Your task to perform on an android device: Clear the cart on amazon.com. Add razer naga to the cart on amazon.com Image 0: 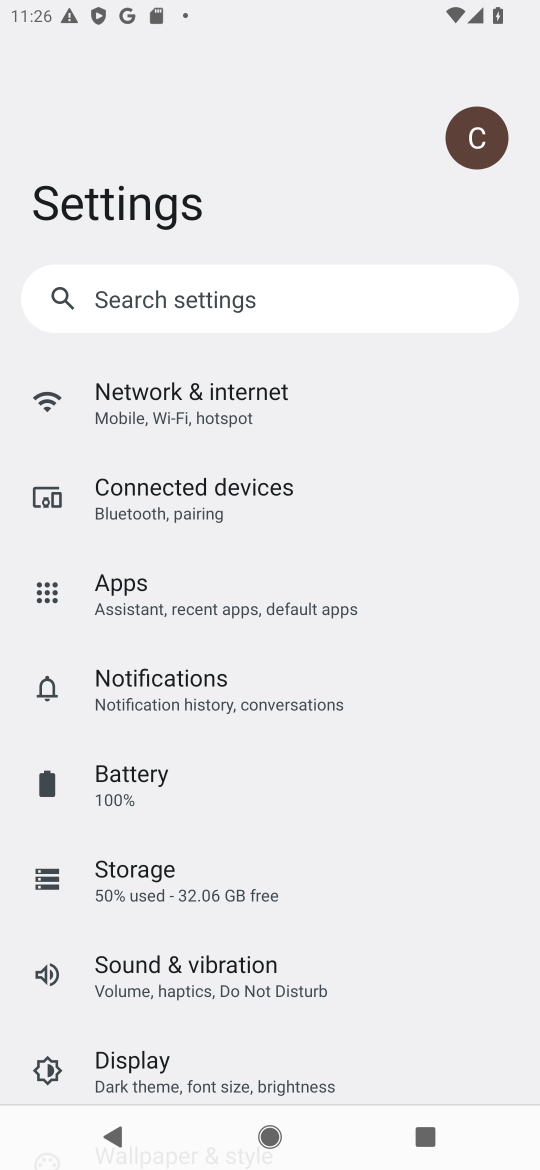
Step 0: press home button
Your task to perform on an android device: Clear the cart on amazon.com. Add razer naga to the cart on amazon.com Image 1: 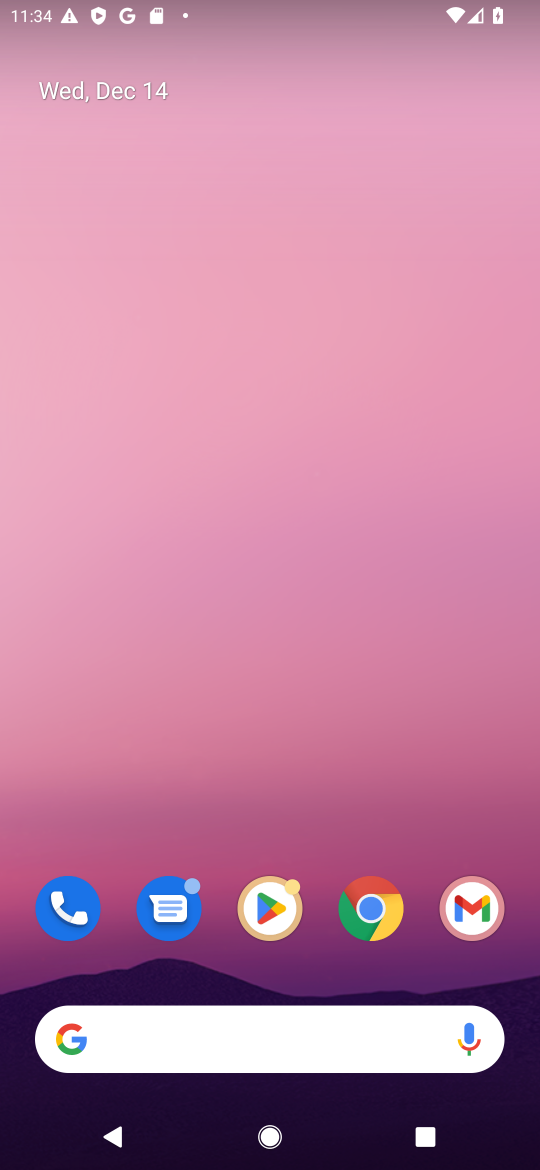
Step 1: click (366, 907)
Your task to perform on an android device: Clear the cart on amazon.com. Add razer naga to the cart on amazon.com Image 2: 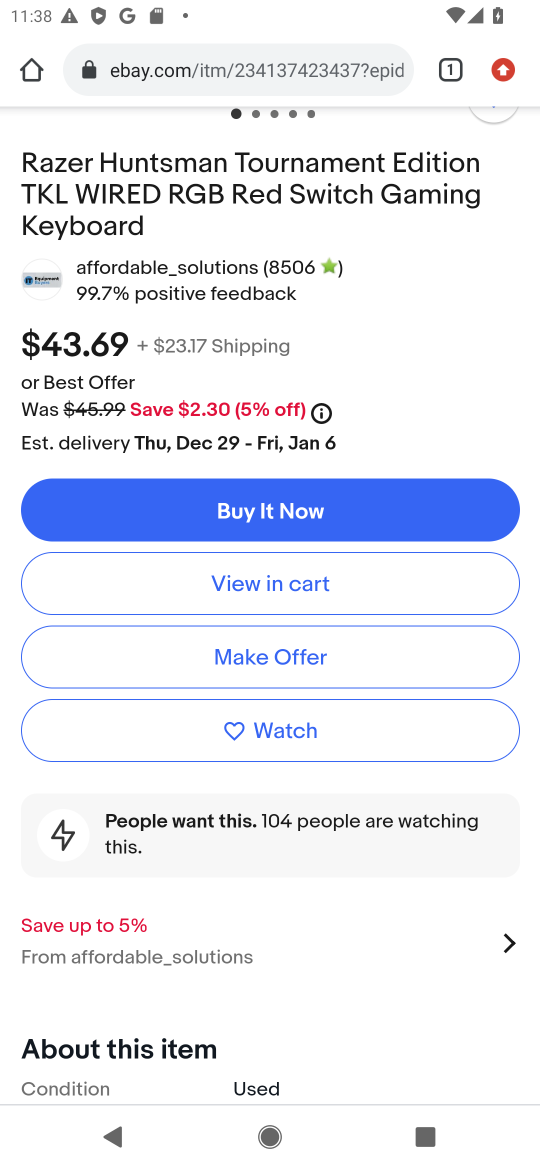
Step 2: task complete